Your task to perform on an android device: Go to notification settings Image 0: 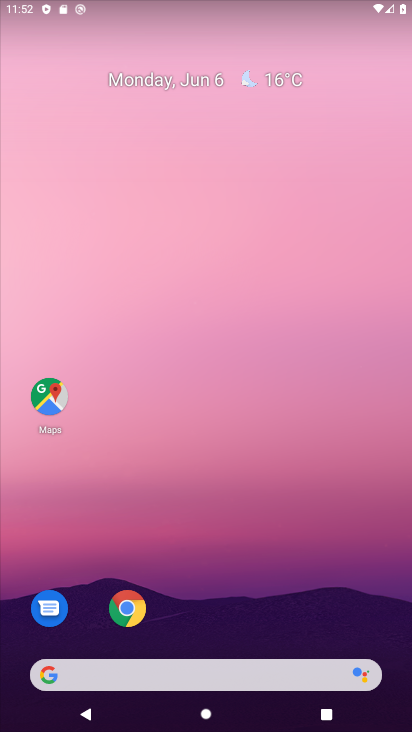
Step 0: drag from (251, 614) to (300, 7)
Your task to perform on an android device: Go to notification settings Image 1: 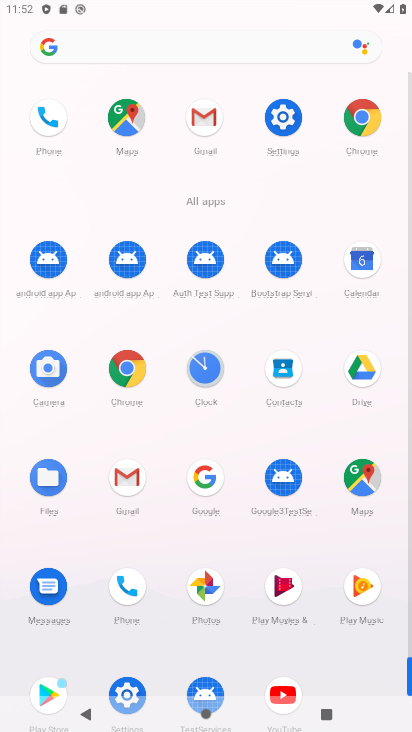
Step 1: click (276, 112)
Your task to perform on an android device: Go to notification settings Image 2: 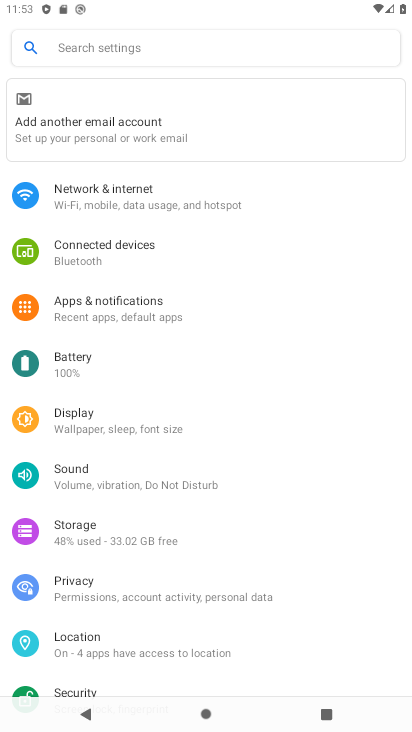
Step 2: click (136, 311)
Your task to perform on an android device: Go to notification settings Image 3: 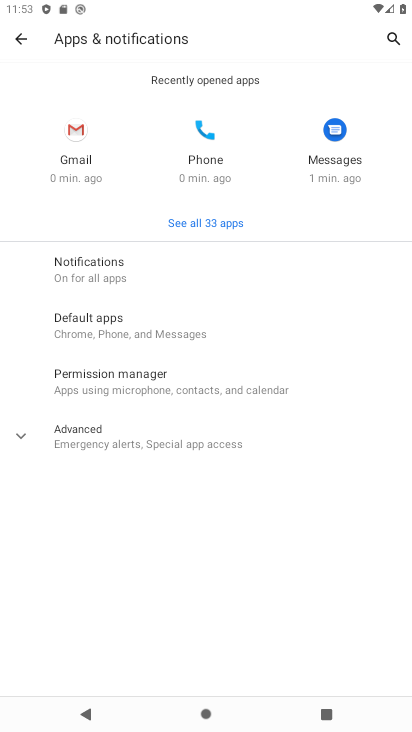
Step 3: click (103, 277)
Your task to perform on an android device: Go to notification settings Image 4: 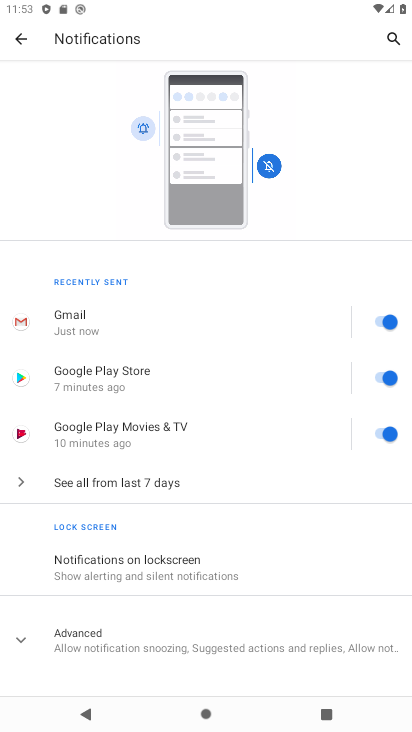
Step 4: task complete